Your task to perform on an android device: turn off smart reply in the gmail app Image 0: 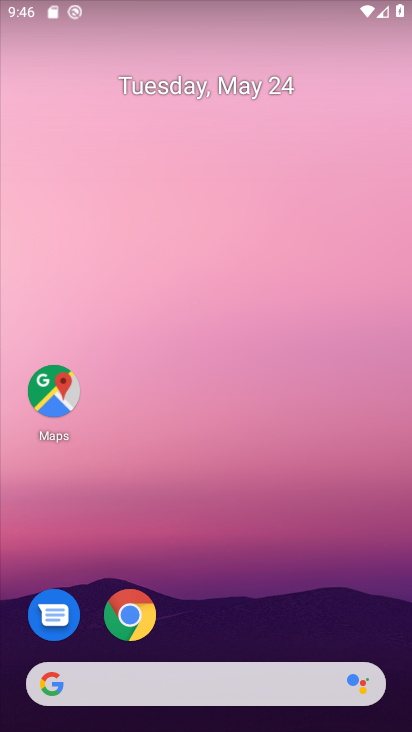
Step 0: drag from (396, 639) to (394, 225)
Your task to perform on an android device: turn off smart reply in the gmail app Image 1: 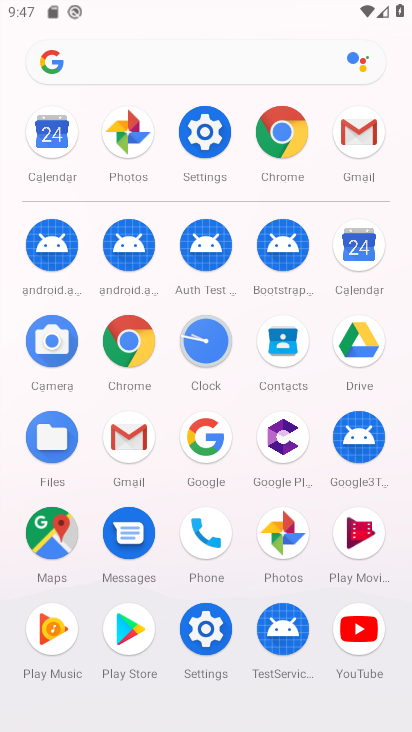
Step 1: click (140, 440)
Your task to perform on an android device: turn off smart reply in the gmail app Image 2: 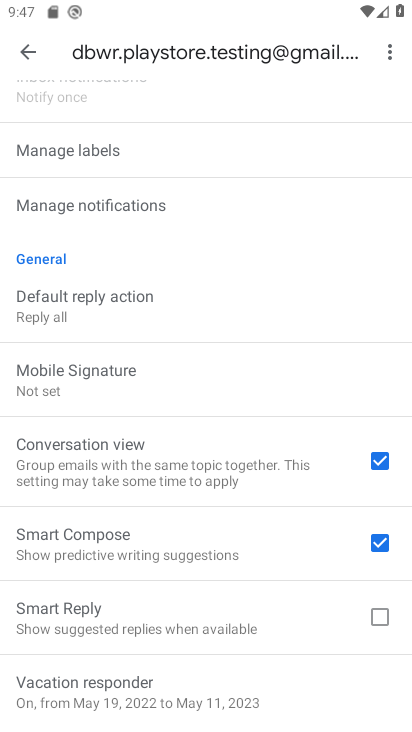
Step 2: task complete